Your task to perform on an android device: Go to accessibility settings Image 0: 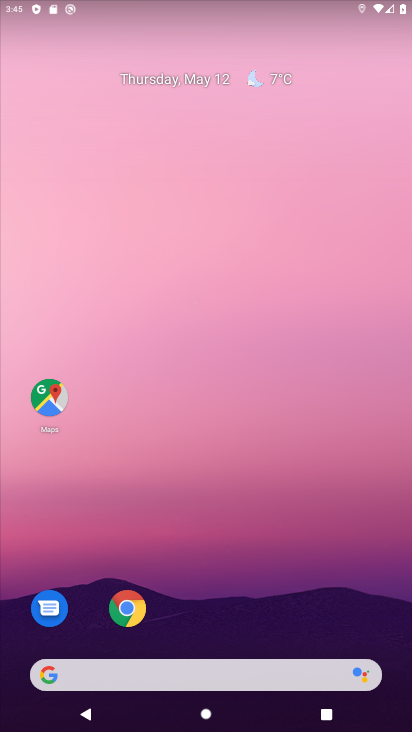
Step 0: drag from (267, 624) to (222, 83)
Your task to perform on an android device: Go to accessibility settings Image 1: 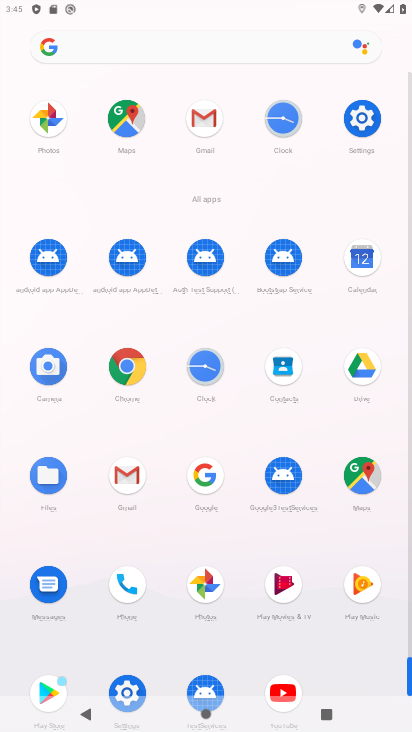
Step 1: click (125, 688)
Your task to perform on an android device: Go to accessibility settings Image 2: 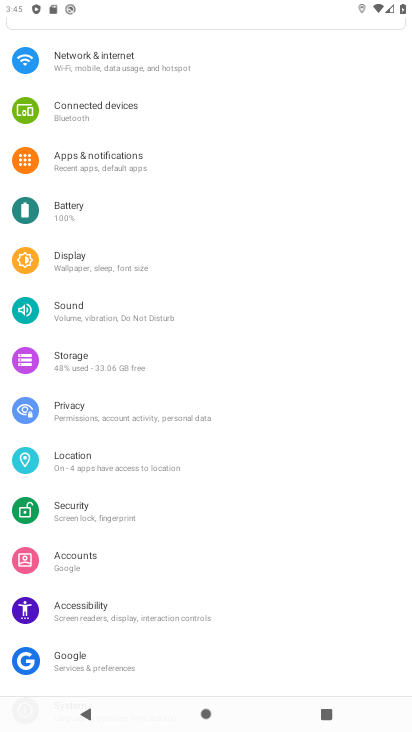
Step 2: click (54, 606)
Your task to perform on an android device: Go to accessibility settings Image 3: 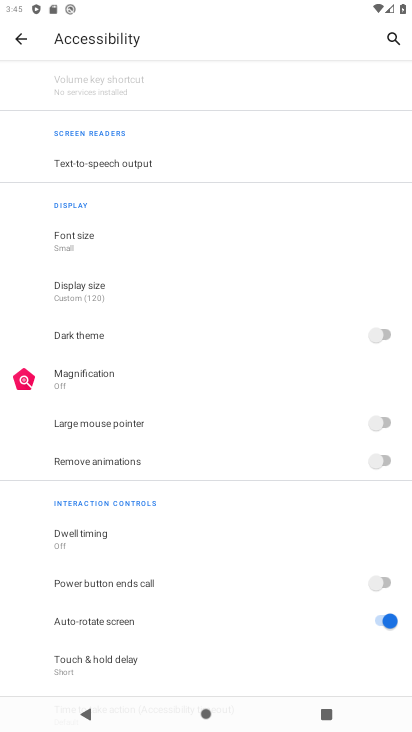
Step 3: task complete